Your task to perform on an android device: clear all cookies in the chrome app Image 0: 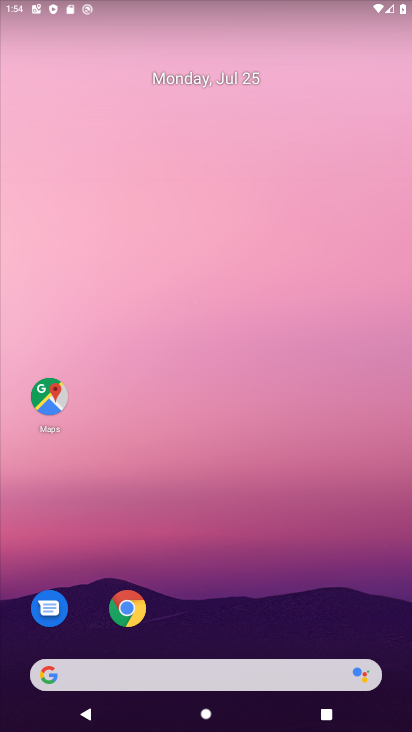
Step 0: click (136, 599)
Your task to perform on an android device: clear all cookies in the chrome app Image 1: 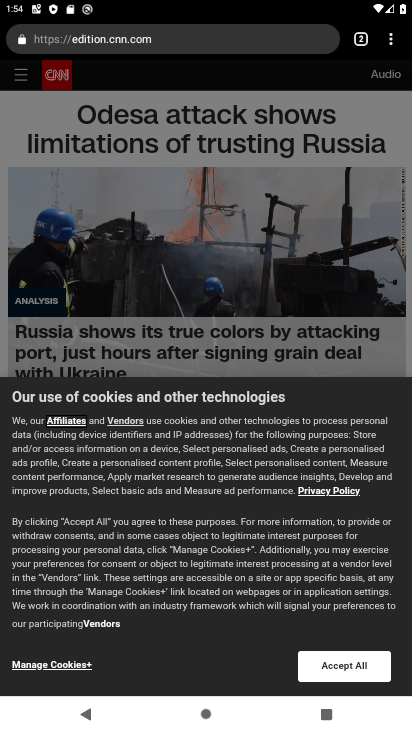
Step 1: click (363, 46)
Your task to perform on an android device: clear all cookies in the chrome app Image 2: 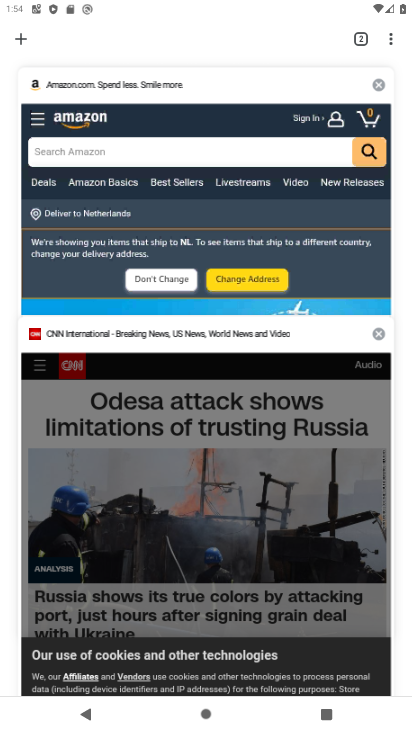
Step 2: click (17, 41)
Your task to perform on an android device: clear all cookies in the chrome app Image 3: 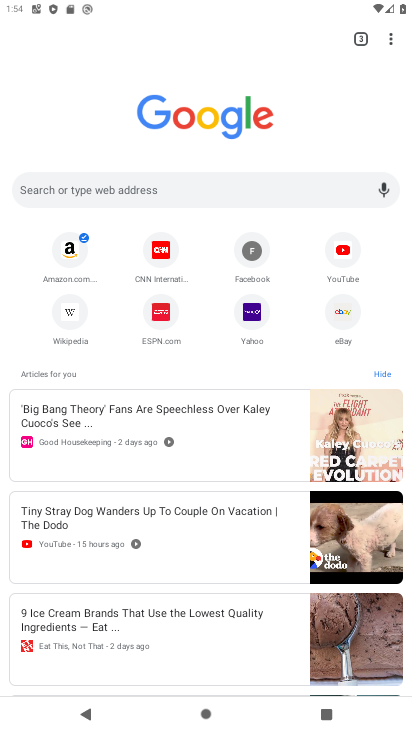
Step 3: task complete